Your task to perform on an android device: delete location history Image 0: 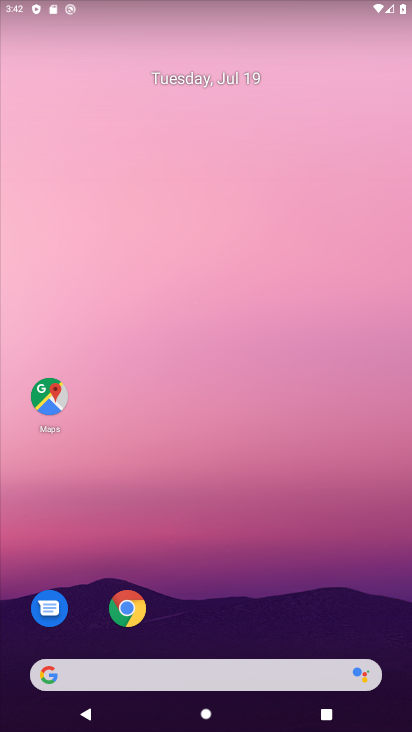
Step 0: drag from (285, 619) to (241, 3)
Your task to perform on an android device: delete location history Image 1: 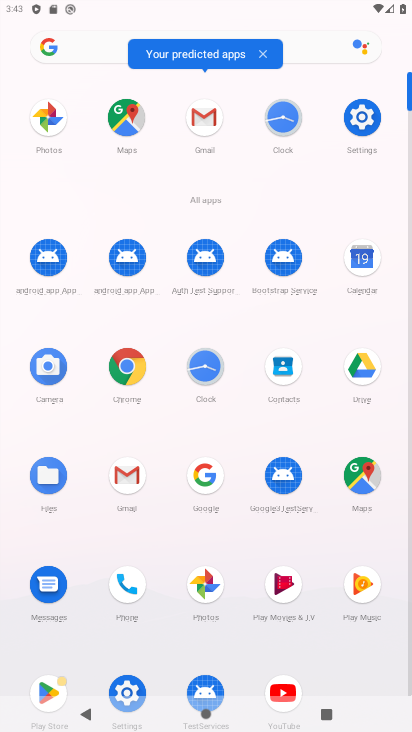
Step 1: click (121, 115)
Your task to perform on an android device: delete location history Image 2: 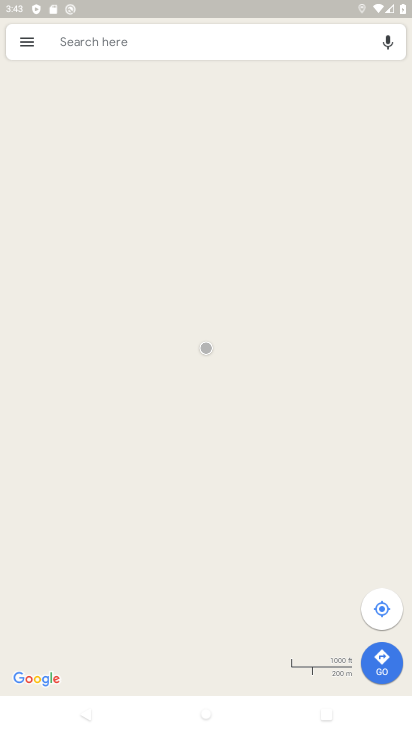
Step 2: click (30, 38)
Your task to perform on an android device: delete location history Image 3: 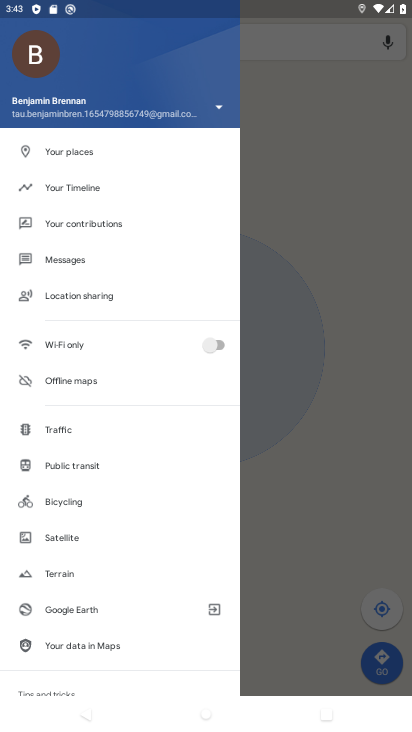
Step 3: click (92, 181)
Your task to perform on an android device: delete location history Image 4: 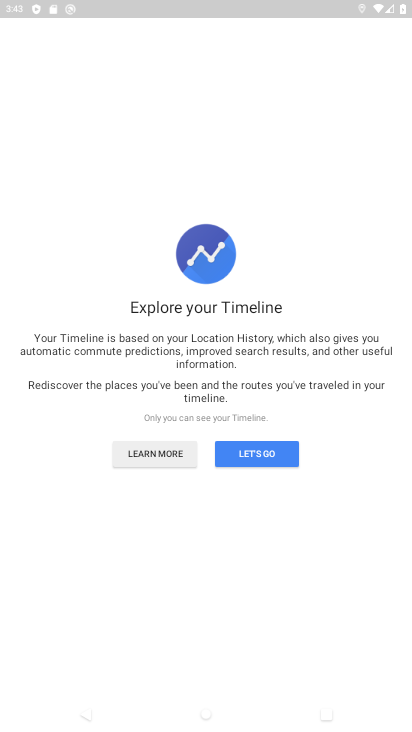
Step 4: click (280, 461)
Your task to perform on an android device: delete location history Image 5: 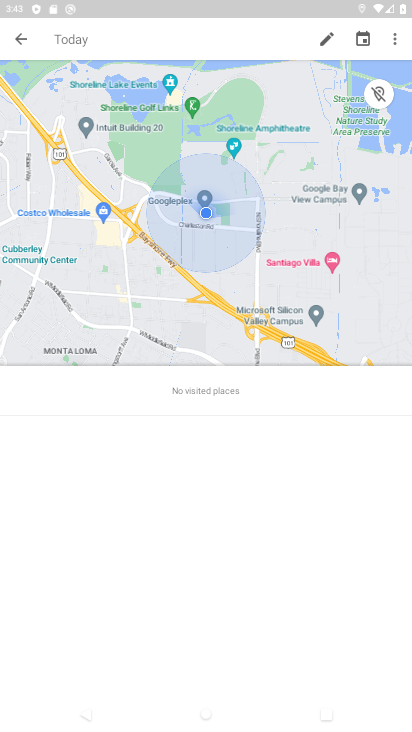
Step 5: click (392, 44)
Your task to perform on an android device: delete location history Image 6: 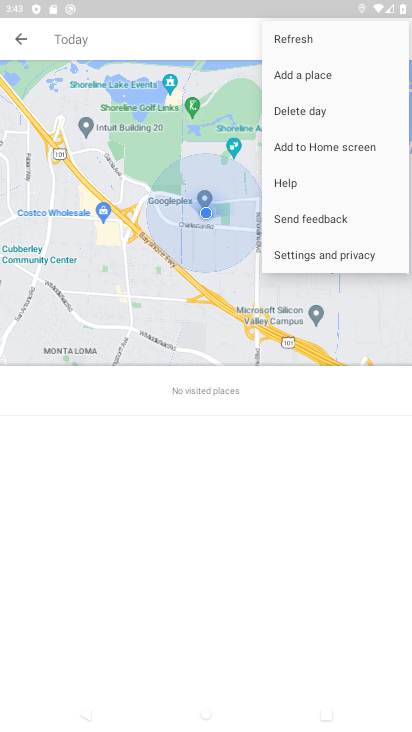
Step 6: click (347, 253)
Your task to perform on an android device: delete location history Image 7: 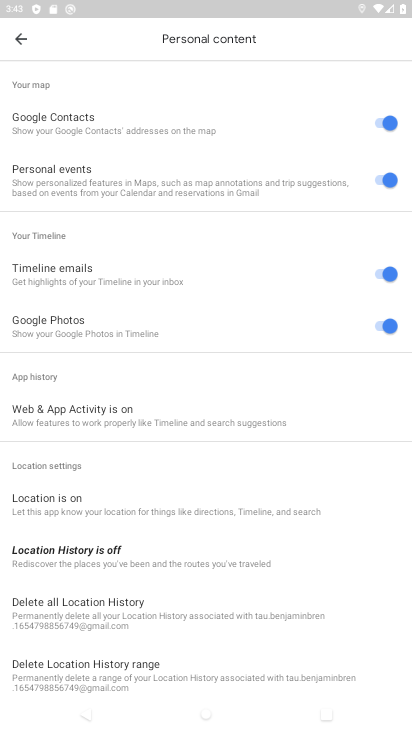
Step 7: click (233, 615)
Your task to perform on an android device: delete location history Image 8: 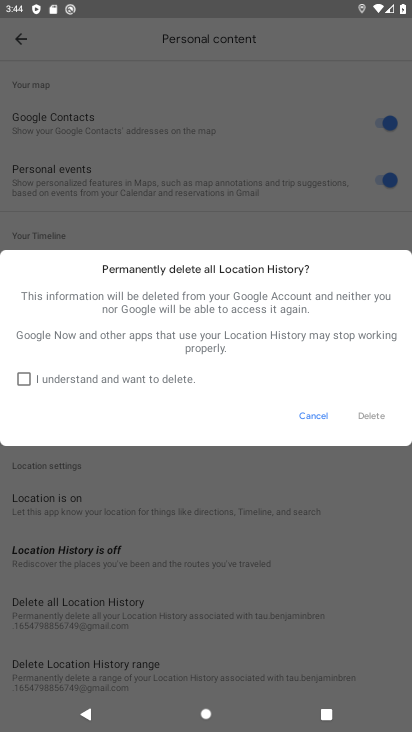
Step 8: click (159, 368)
Your task to perform on an android device: delete location history Image 9: 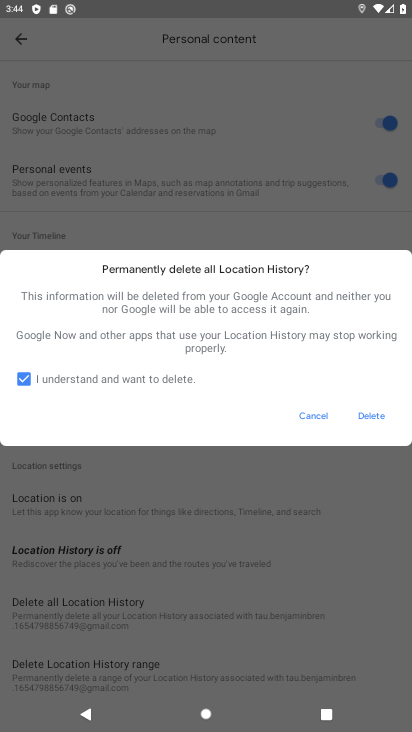
Step 9: click (362, 413)
Your task to perform on an android device: delete location history Image 10: 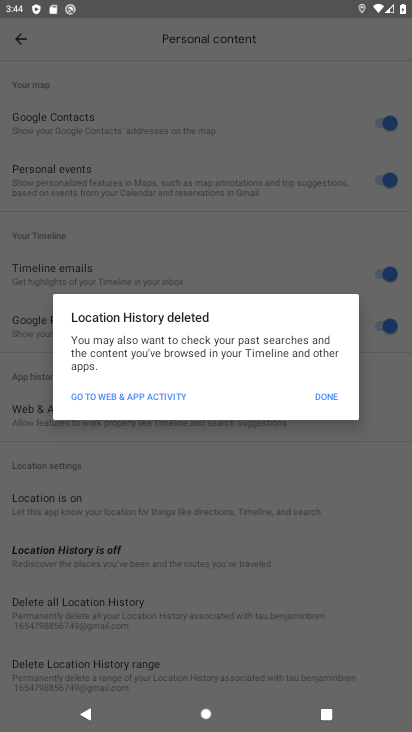
Step 10: click (326, 399)
Your task to perform on an android device: delete location history Image 11: 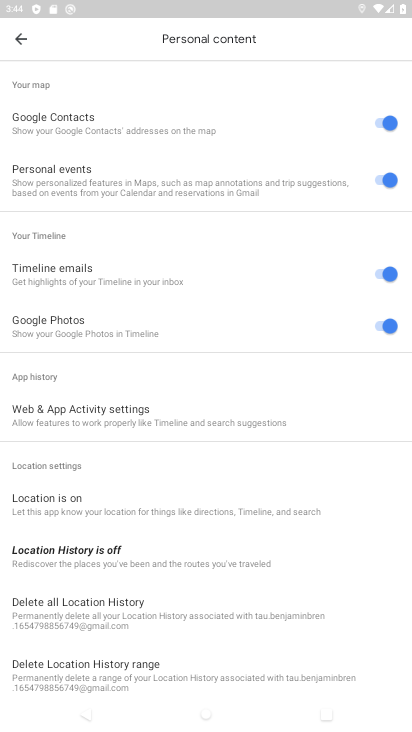
Step 11: task complete